Your task to perform on an android device: change the clock display to digital Image 0: 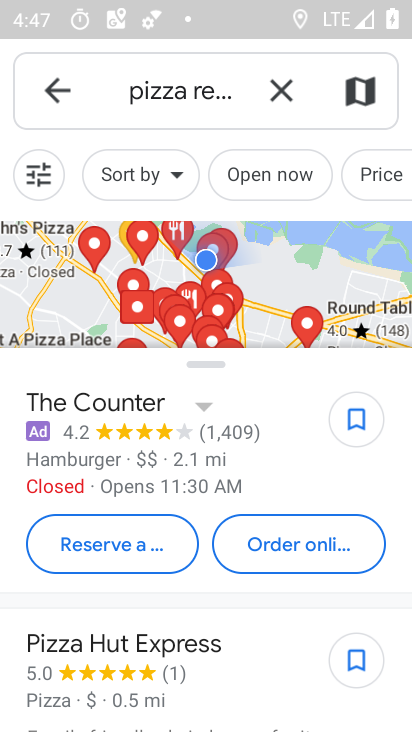
Step 0: press home button
Your task to perform on an android device: change the clock display to digital Image 1: 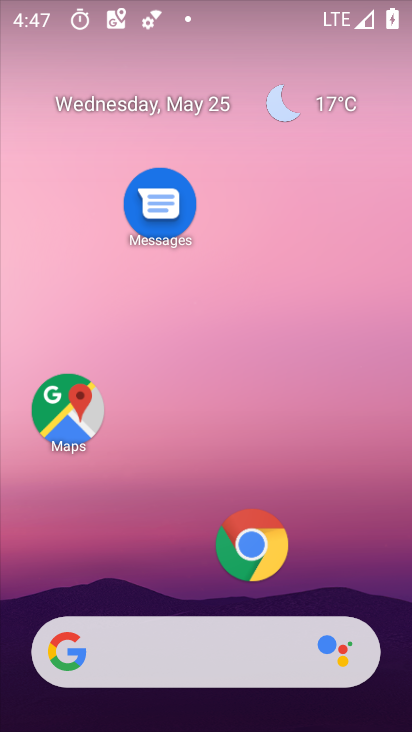
Step 1: drag from (345, 557) to (301, 252)
Your task to perform on an android device: change the clock display to digital Image 2: 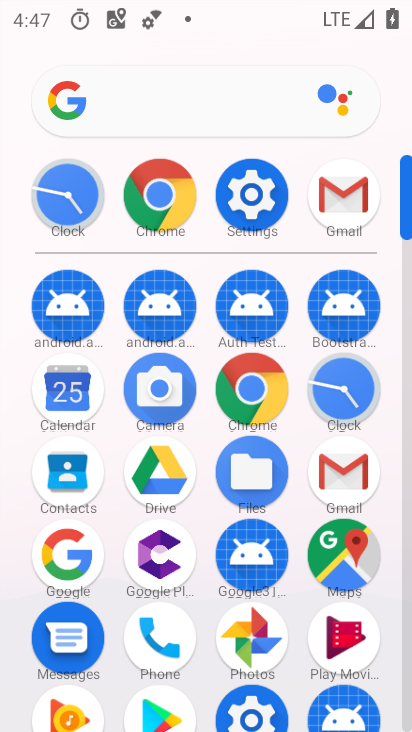
Step 2: click (354, 387)
Your task to perform on an android device: change the clock display to digital Image 3: 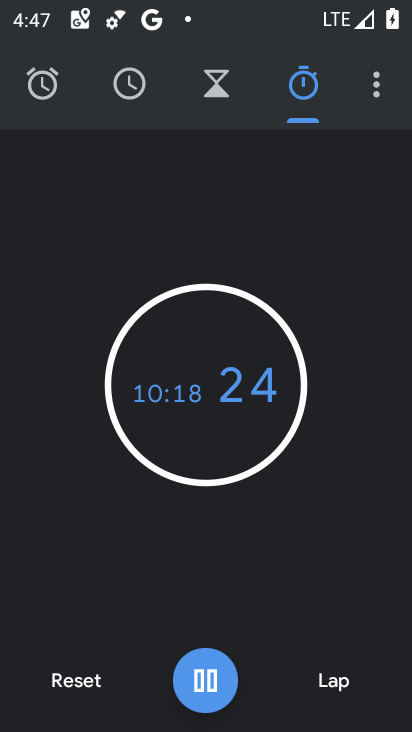
Step 3: click (379, 77)
Your task to perform on an android device: change the clock display to digital Image 4: 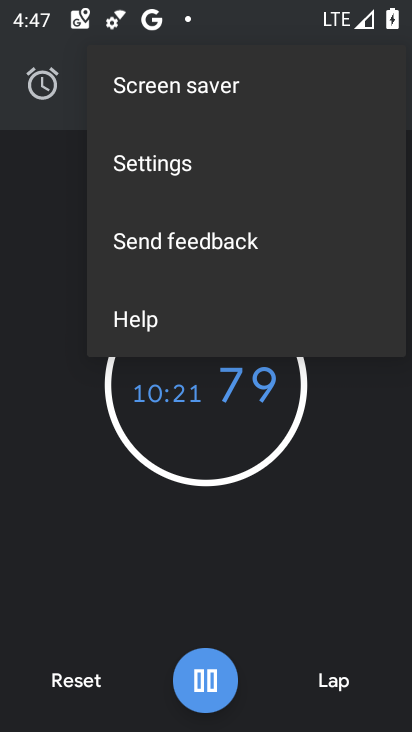
Step 4: click (160, 166)
Your task to perform on an android device: change the clock display to digital Image 5: 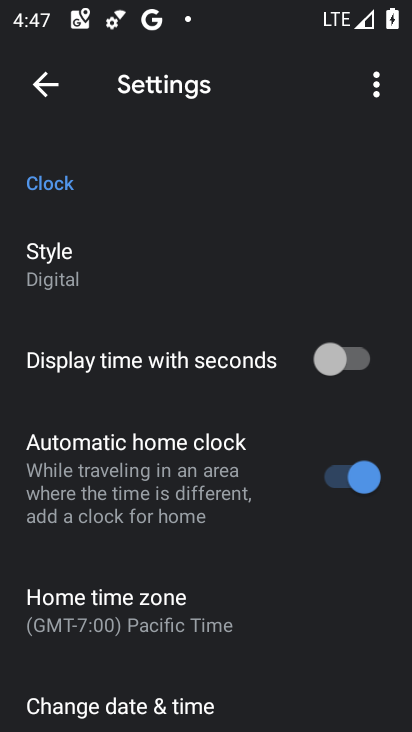
Step 5: click (73, 267)
Your task to perform on an android device: change the clock display to digital Image 6: 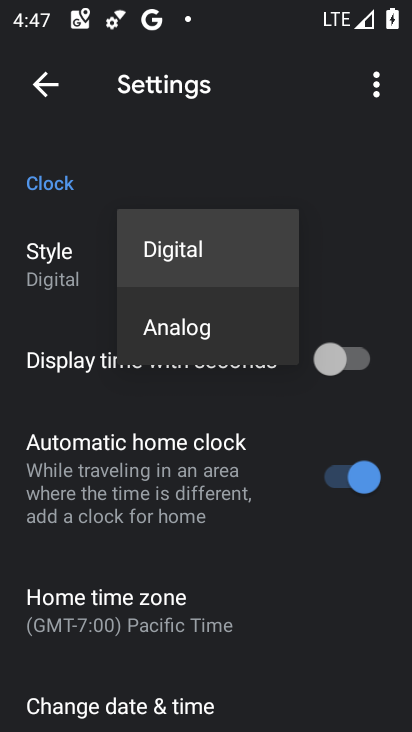
Step 6: click (164, 318)
Your task to perform on an android device: change the clock display to digital Image 7: 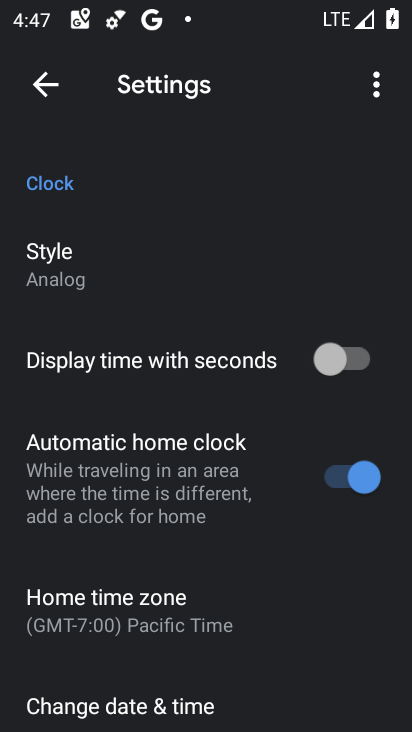
Step 7: task complete